Your task to perform on an android device: Show me the alarms in the clock app Image 0: 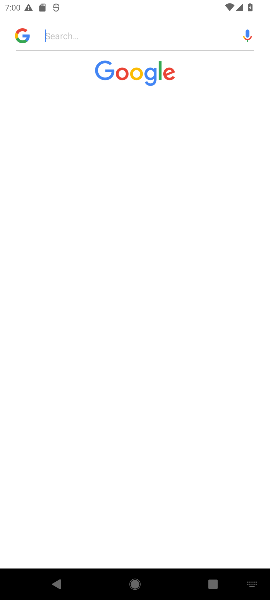
Step 0: press home button
Your task to perform on an android device: Show me the alarms in the clock app Image 1: 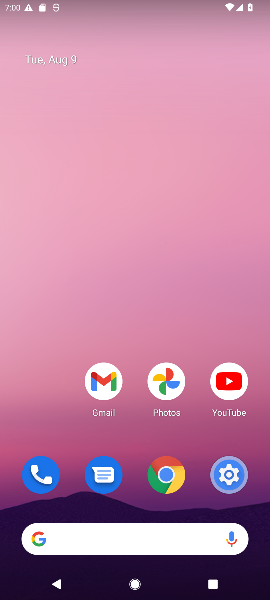
Step 1: drag from (207, 464) to (110, 250)
Your task to perform on an android device: Show me the alarms in the clock app Image 2: 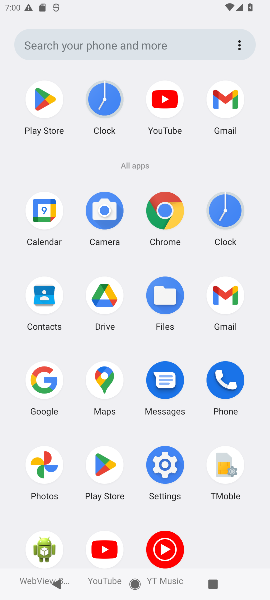
Step 2: click (230, 229)
Your task to perform on an android device: Show me the alarms in the clock app Image 3: 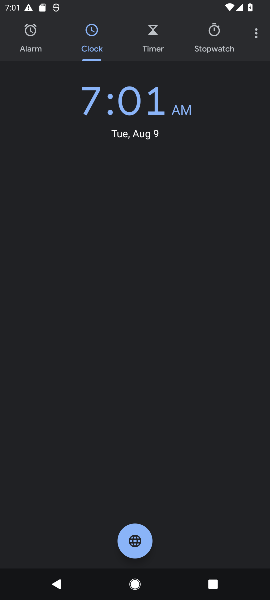
Step 3: click (253, 33)
Your task to perform on an android device: Show me the alarms in the clock app Image 4: 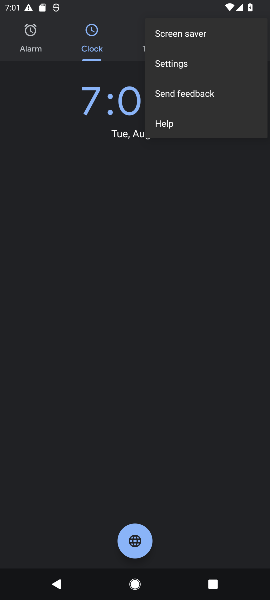
Step 4: click (29, 37)
Your task to perform on an android device: Show me the alarms in the clock app Image 5: 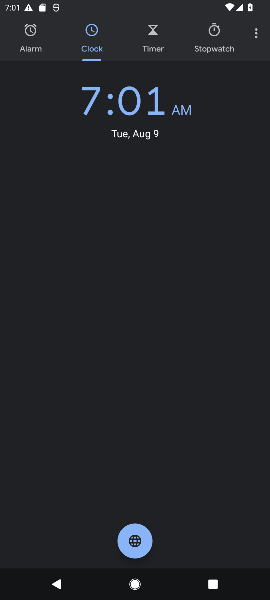
Step 5: click (29, 37)
Your task to perform on an android device: Show me the alarms in the clock app Image 6: 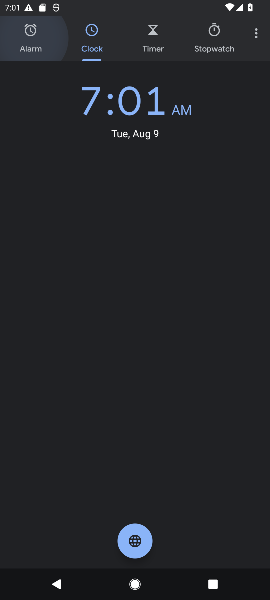
Step 6: click (46, 51)
Your task to perform on an android device: Show me the alarms in the clock app Image 7: 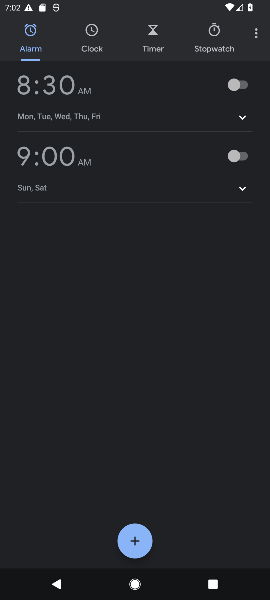
Step 7: task complete